Your task to perform on an android device: What's the weather today? Image 0: 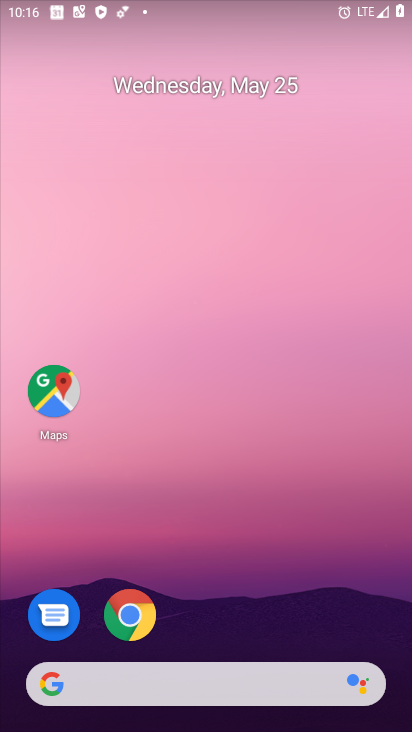
Step 0: click (227, 688)
Your task to perform on an android device: What's the weather today? Image 1: 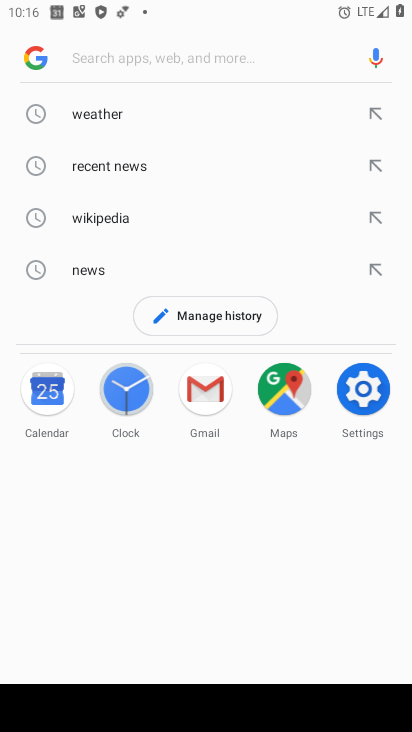
Step 1: click (106, 115)
Your task to perform on an android device: What's the weather today? Image 2: 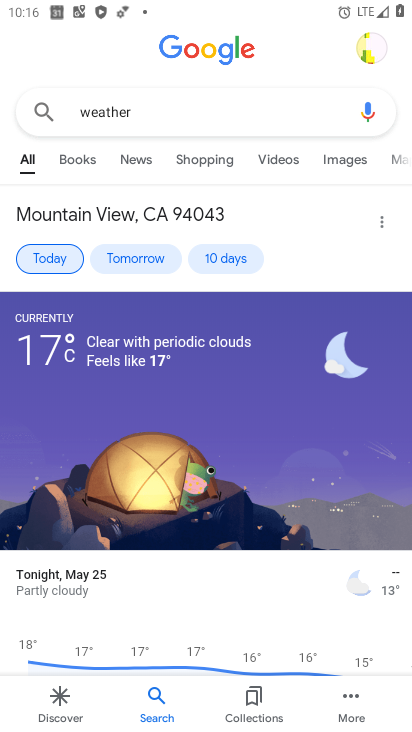
Step 2: click (58, 254)
Your task to perform on an android device: What's the weather today? Image 3: 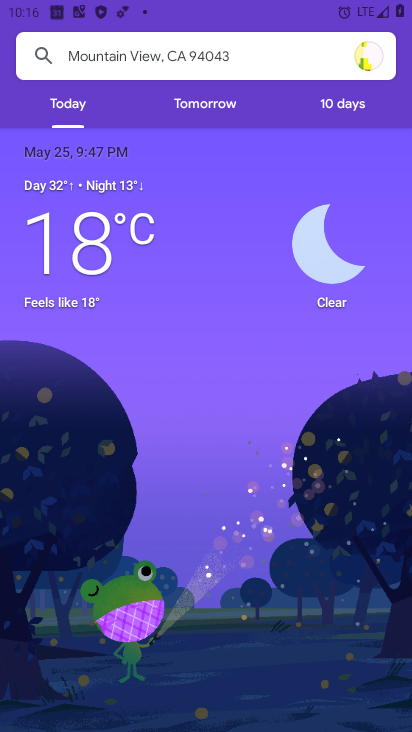
Step 3: task complete